Your task to perform on an android device: Open Amazon Image 0: 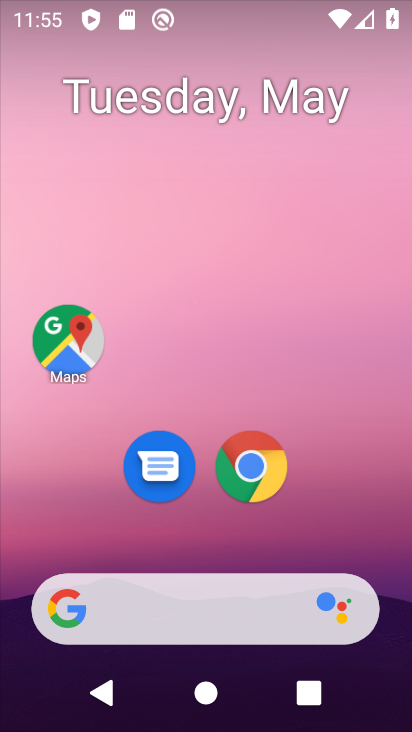
Step 0: click (249, 463)
Your task to perform on an android device: Open Amazon Image 1: 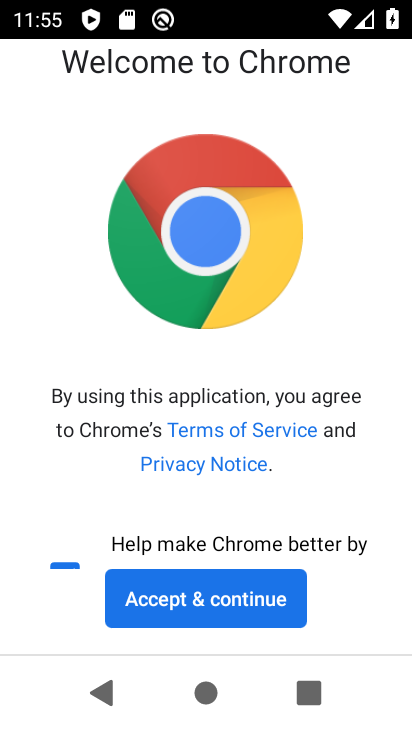
Step 1: click (204, 598)
Your task to perform on an android device: Open Amazon Image 2: 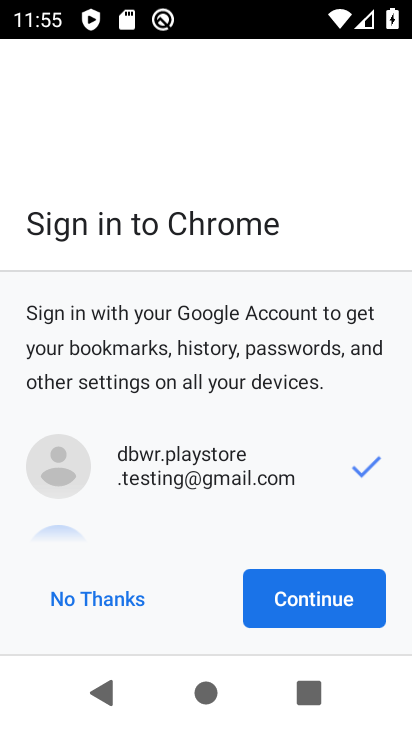
Step 2: click (315, 597)
Your task to perform on an android device: Open Amazon Image 3: 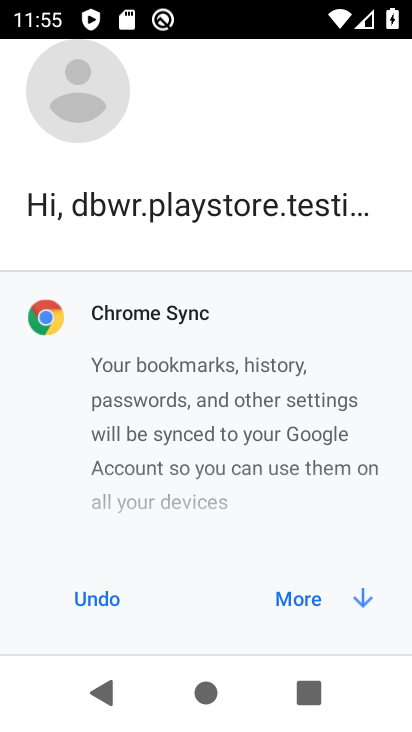
Step 3: click (315, 597)
Your task to perform on an android device: Open Amazon Image 4: 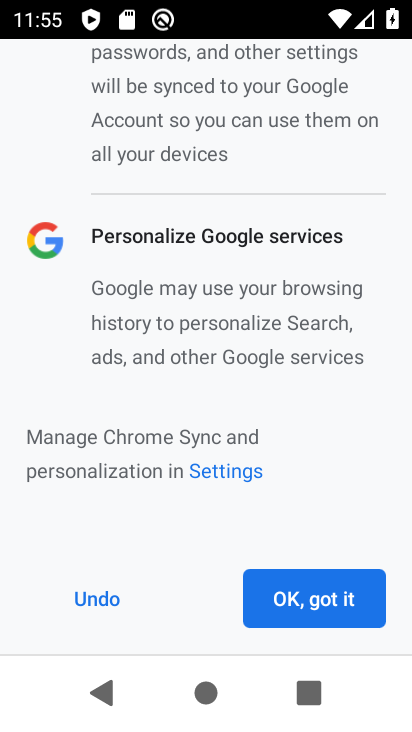
Step 4: click (315, 597)
Your task to perform on an android device: Open Amazon Image 5: 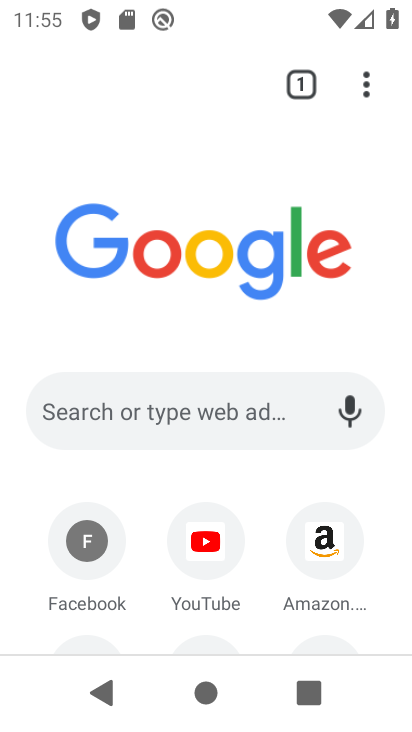
Step 5: click (321, 537)
Your task to perform on an android device: Open Amazon Image 6: 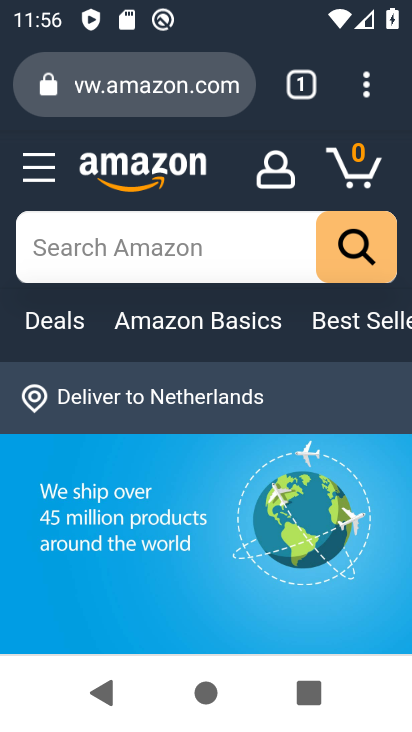
Step 6: task complete